Your task to perform on an android device: Open Chrome and go to settings Image 0: 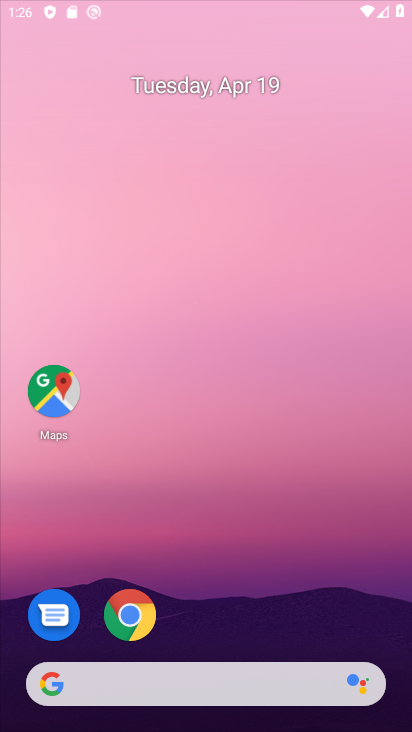
Step 0: click (293, 186)
Your task to perform on an android device: Open Chrome and go to settings Image 1: 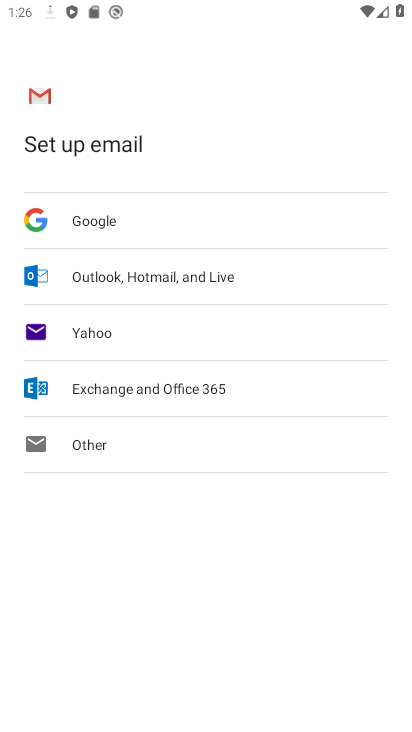
Step 1: press back button
Your task to perform on an android device: Open Chrome and go to settings Image 2: 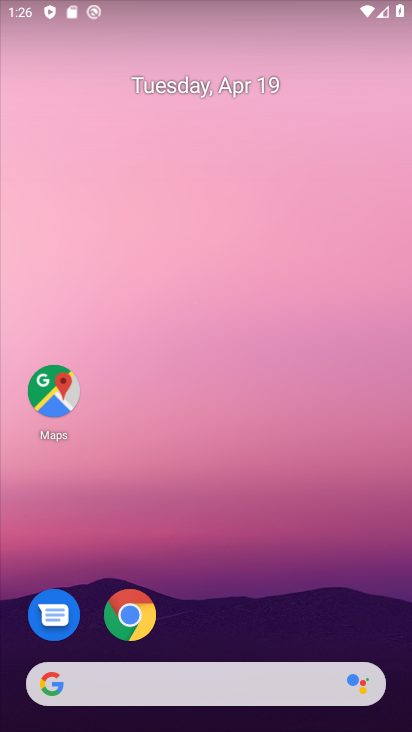
Step 2: click (131, 624)
Your task to perform on an android device: Open Chrome and go to settings Image 3: 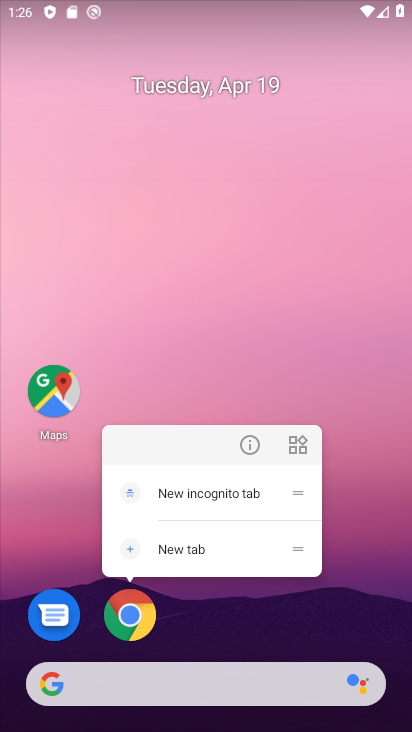
Step 3: click (135, 619)
Your task to perform on an android device: Open Chrome and go to settings Image 4: 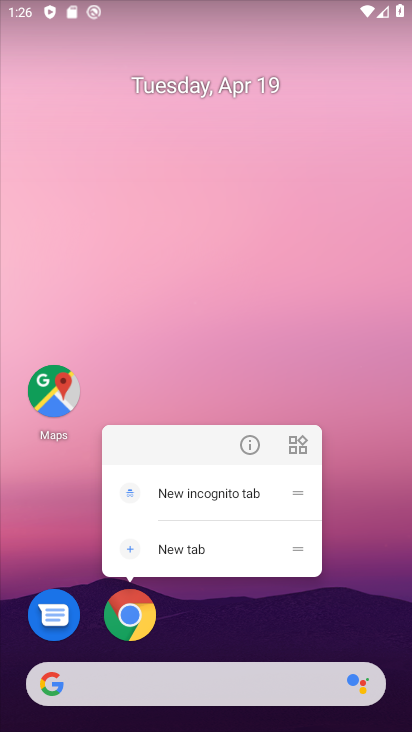
Step 4: click (134, 613)
Your task to perform on an android device: Open Chrome and go to settings Image 5: 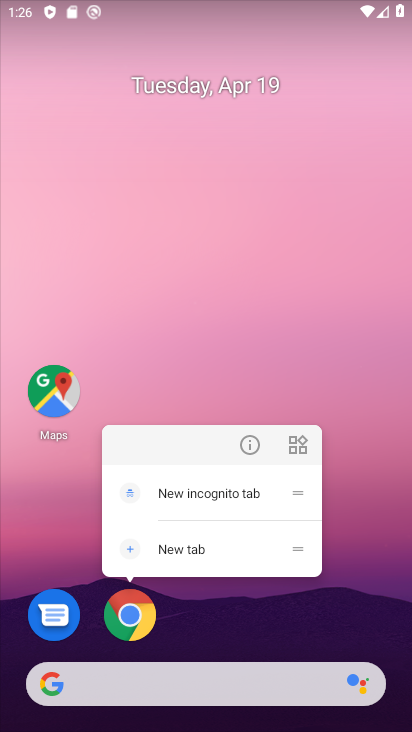
Step 5: click (134, 611)
Your task to perform on an android device: Open Chrome and go to settings Image 6: 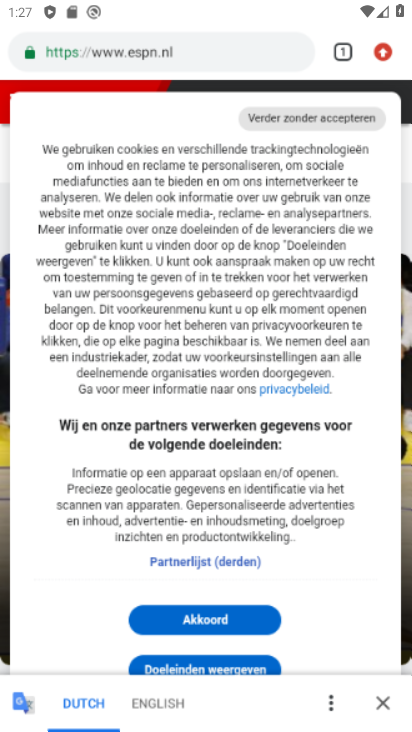
Step 6: click (388, 65)
Your task to perform on an android device: Open Chrome and go to settings Image 7: 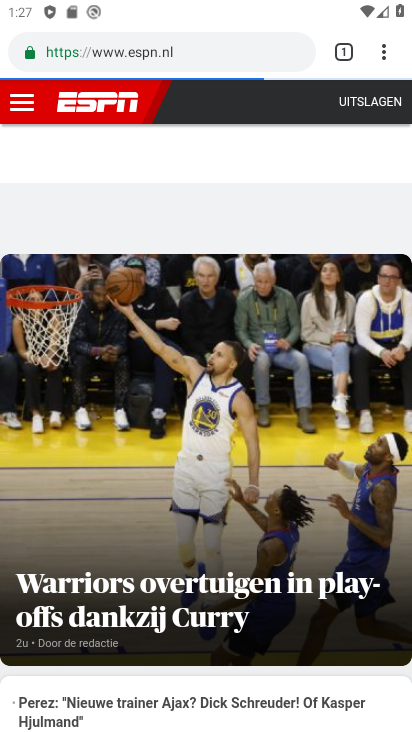
Step 7: click (389, 51)
Your task to perform on an android device: Open Chrome and go to settings Image 8: 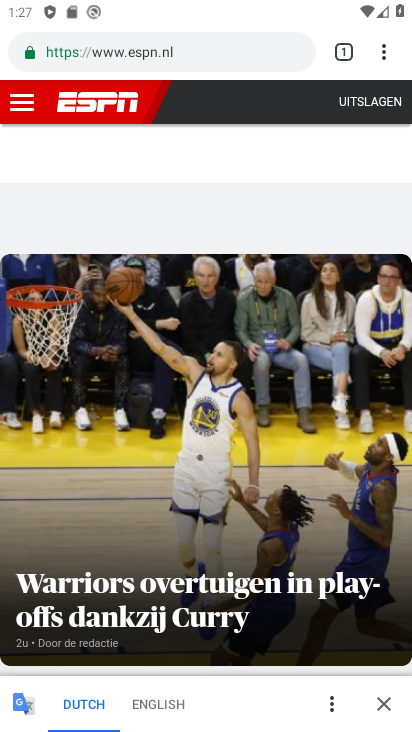
Step 8: task complete